Your task to perform on an android device: Go to Maps Image 0: 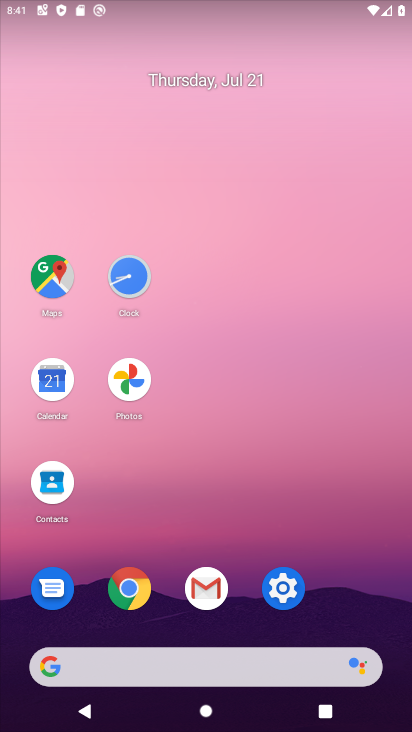
Step 0: click (52, 272)
Your task to perform on an android device: Go to Maps Image 1: 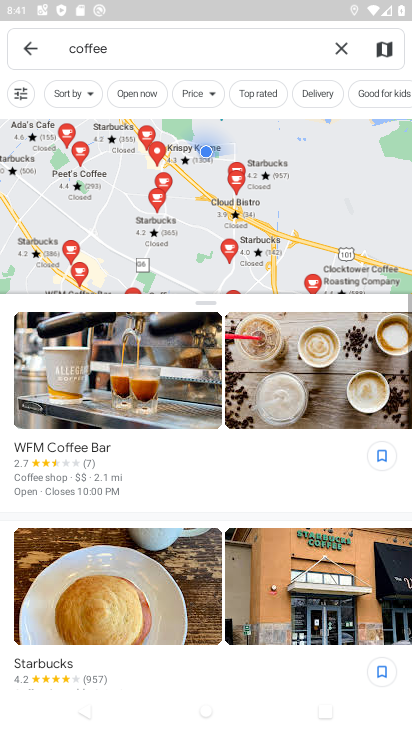
Step 1: click (27, 46)
Your task to perform on an android device: Go to Maps Image 2: 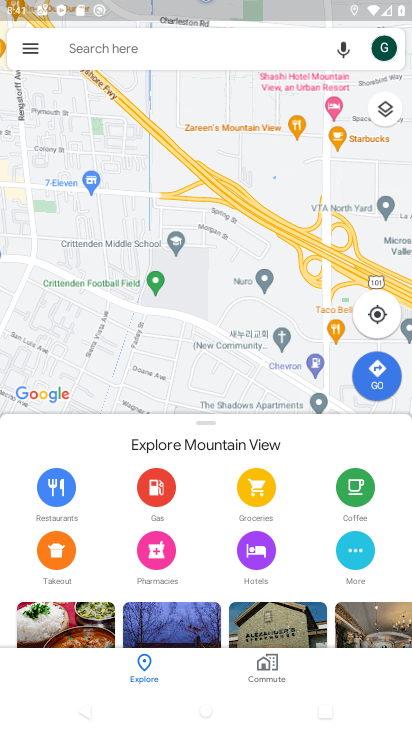
Step 2: task complete